Your task to perform on an android device: manage bookmarks in the chrome app Image 0: 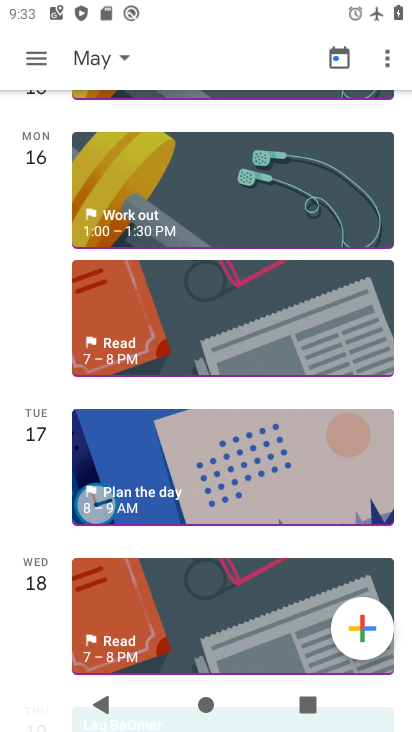
Step 0: press home button
Your task to perform on an android device: manage bookmarks in the chrome app Image 1: 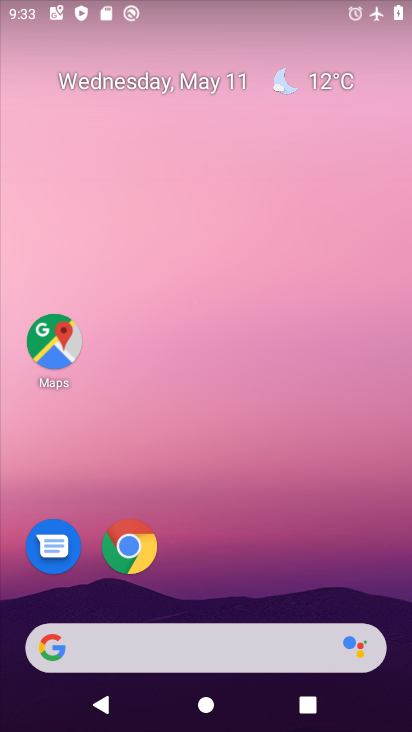
Step 1: click (131, 543)
Your task to perform on an android device: manage bookmarks in the chrome app Image 2: 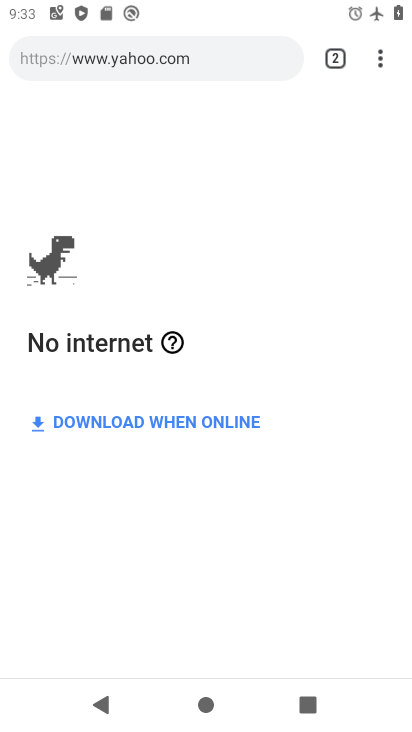
Step 2: click (376, 60)
Your task to perform on an android device: manage bookmarks in the chrome app Image 3: 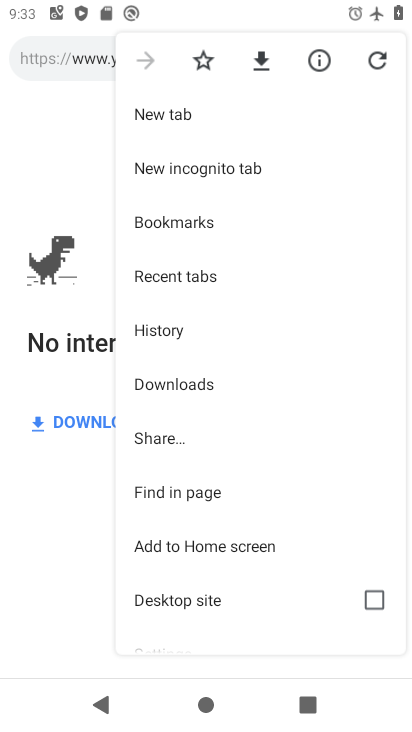
Step 3: click (160, 216)
Your task to perform on an android device: manage bookmarks in the chrome app Image 4: 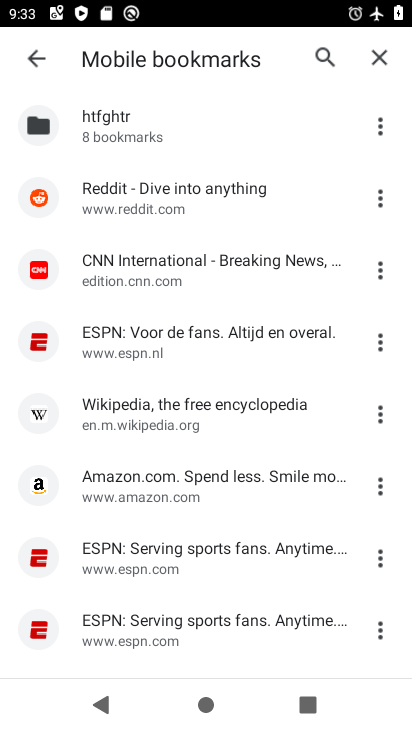
Step 4: click (140, 349)
Your task to perform on an android device: manage bookmarks in the chrome app Image 5: 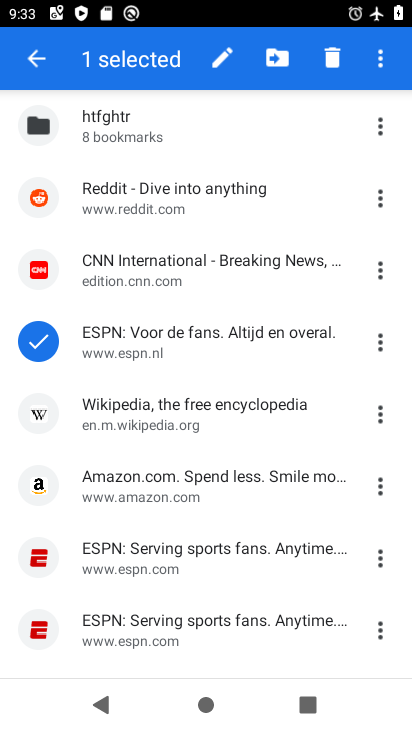
Step 5: click (277, 48)
Your task to perform on an android device: manage bookmarks in the chrome app Image 6: 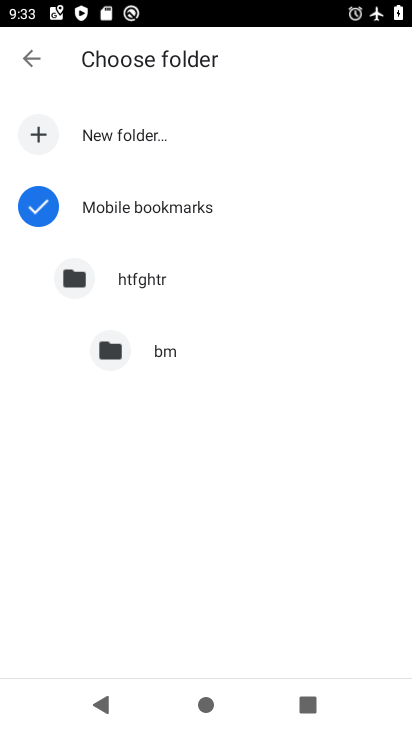
Step 6: click (150, 276)
Your task to perform on an android device: manage bookmarks in the chrome app Image 7: 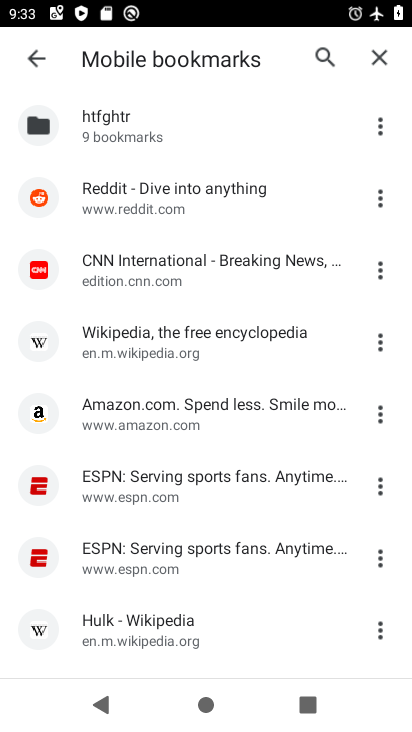
Step 7: task complete